Your task to perform on an android device: Search for the best rated Bluetooth earbuds on Ali express Image 0: 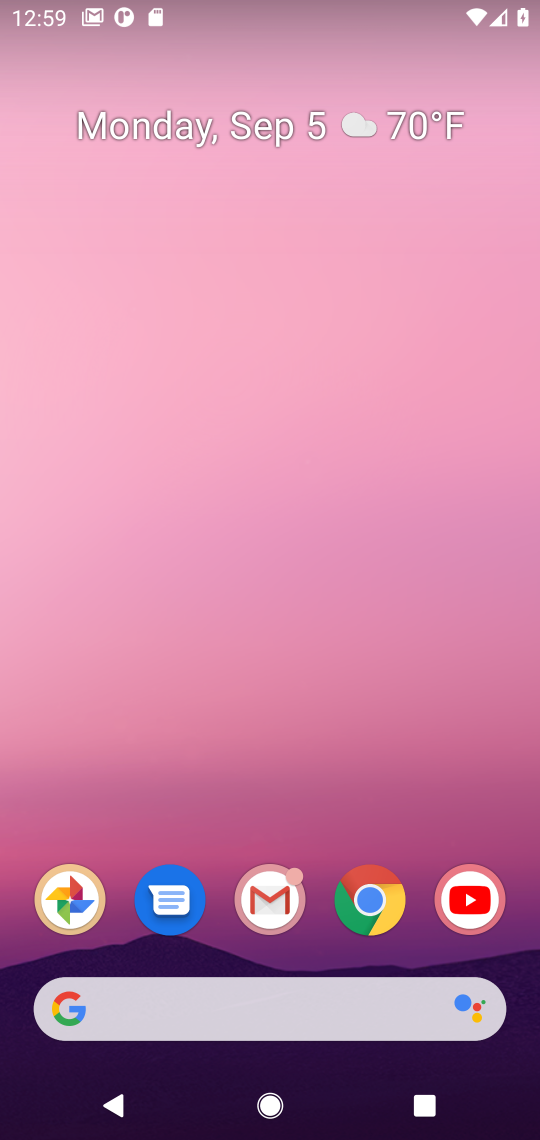
Step 0: drag from (330, 846) to (309, 87)
Your task to perform on an android device: Search for the best rated Bluetooth earbuds on Ali express Image 1: 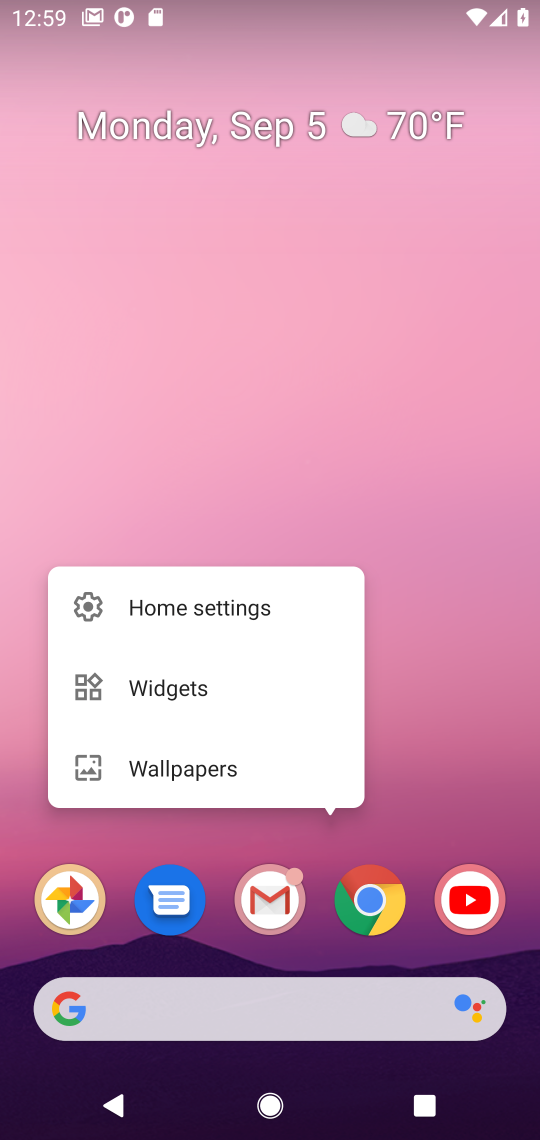
Step 1: drag from (340, 835) to (284, 157)
Your task to perform on an android device: Search for the best rated Bluetooth earbuds on Ali express Image 2: 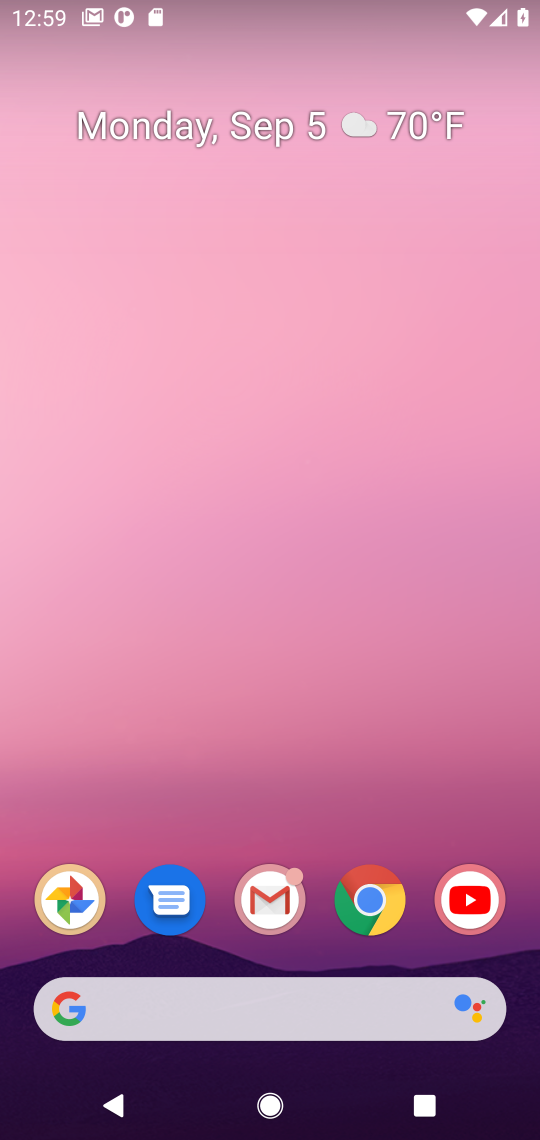
Step 2: drag from (303, 892) to (282, 339)
Your task to perform on an android device: Search for the best rated Bluetooth earbuds on Ali express Image 3: 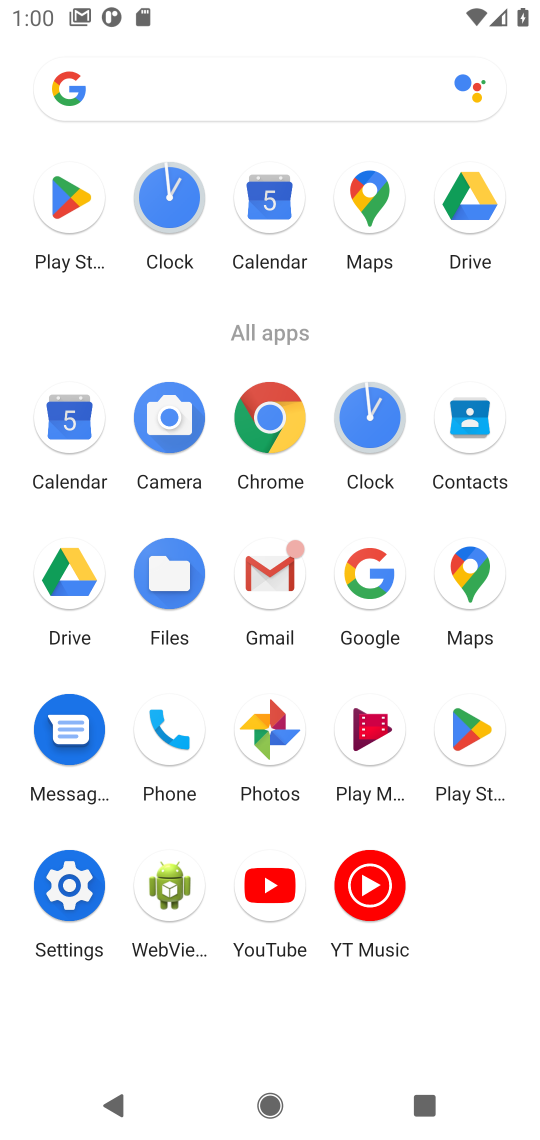
Step 3: click (367, 567)
Your task to perform on an android device: Search for the best rated Bluetooth earbuds on Ali express Image 4: 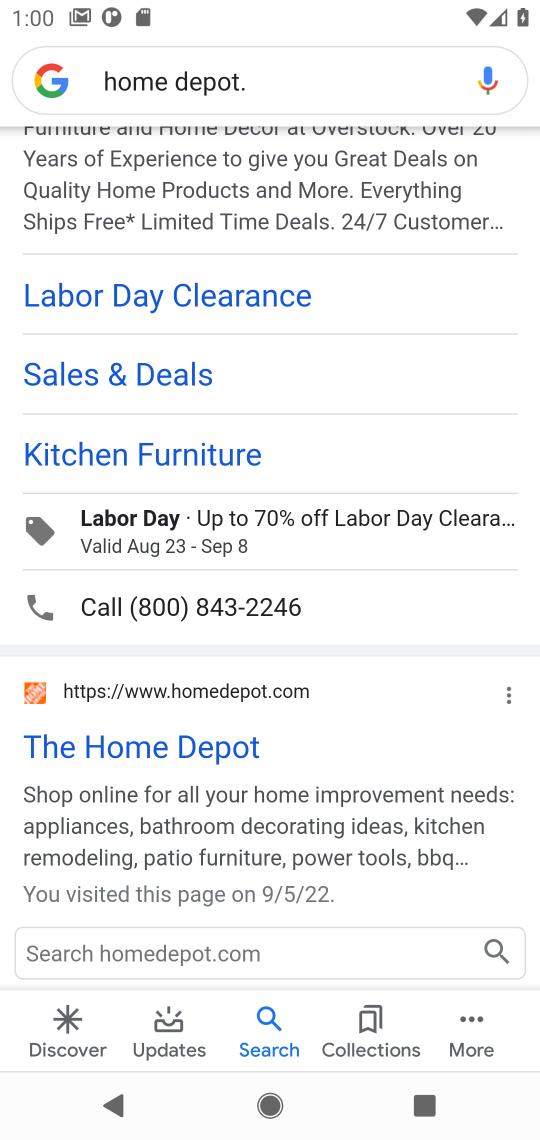
Step 4: click (313, 77)
Your task to perform on an android device: Search for the best rated Bluetooth earbuds on Ali express Image 5: 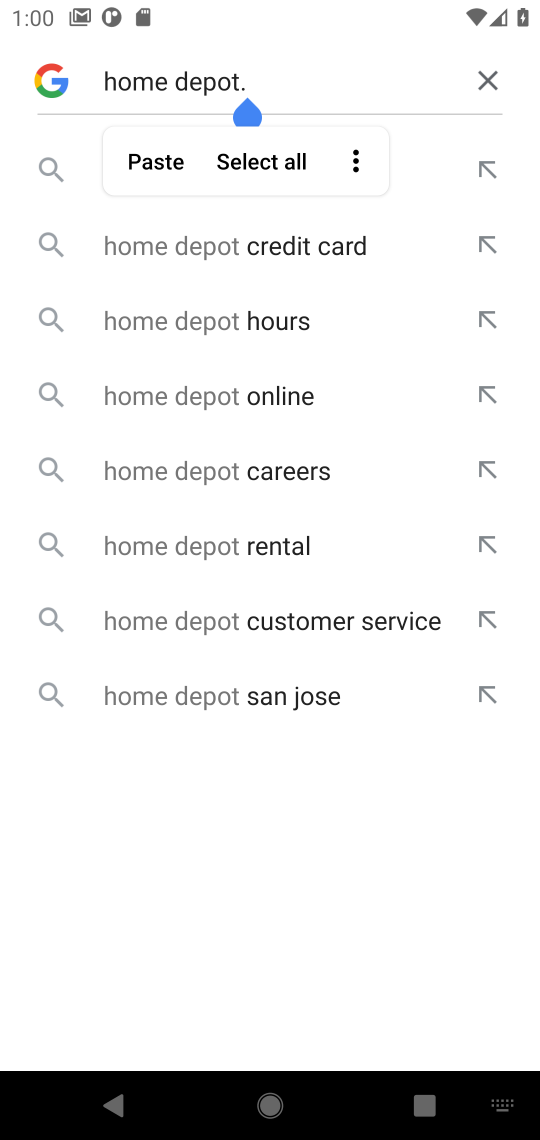
Step 5: click (490, 72)
Your task to perform on an android device: Search for the best rated Bluetooth earbuds on Ali express Image 6: 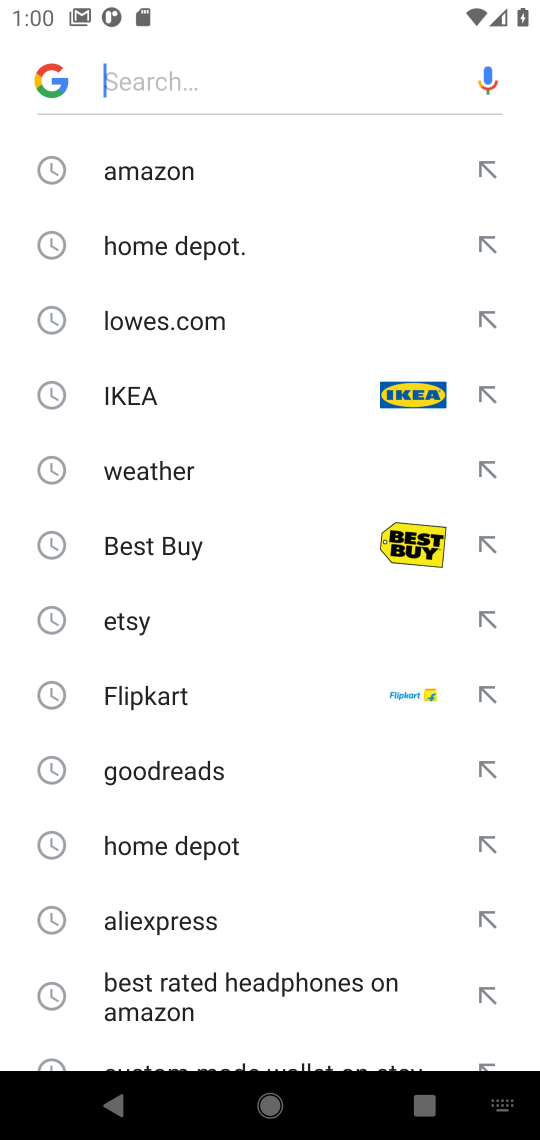
Step 6: type "Ali express"
Your task to perform on an android device: Search for the best rated Bluetooth earbuds on Ali express Image 7: 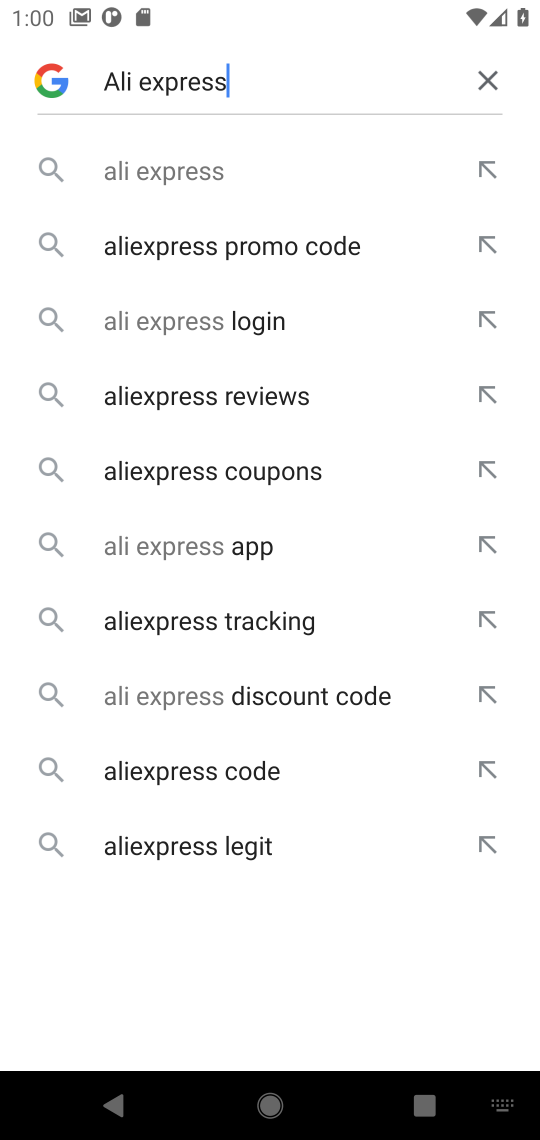
Step 7: click (190, 171)
Your task to perform on an android device: Search for the best rated Bluetooth earbuds on Ali express Image 8: 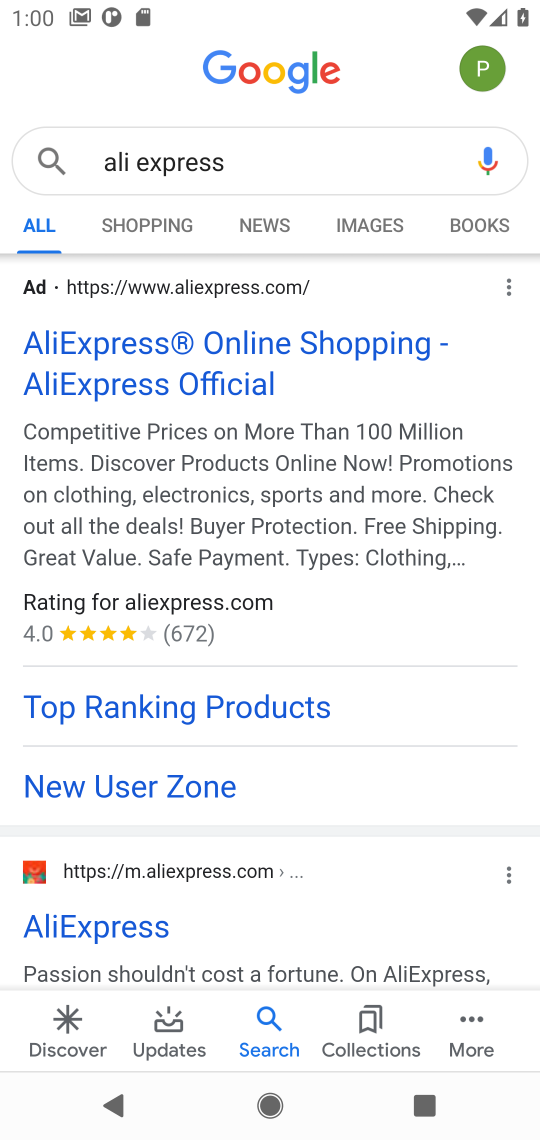
Step 8: click (105, 927)
Your task to perform on an android device: Search for the best rated Bluetooth earbuds on Ali express Image 9: 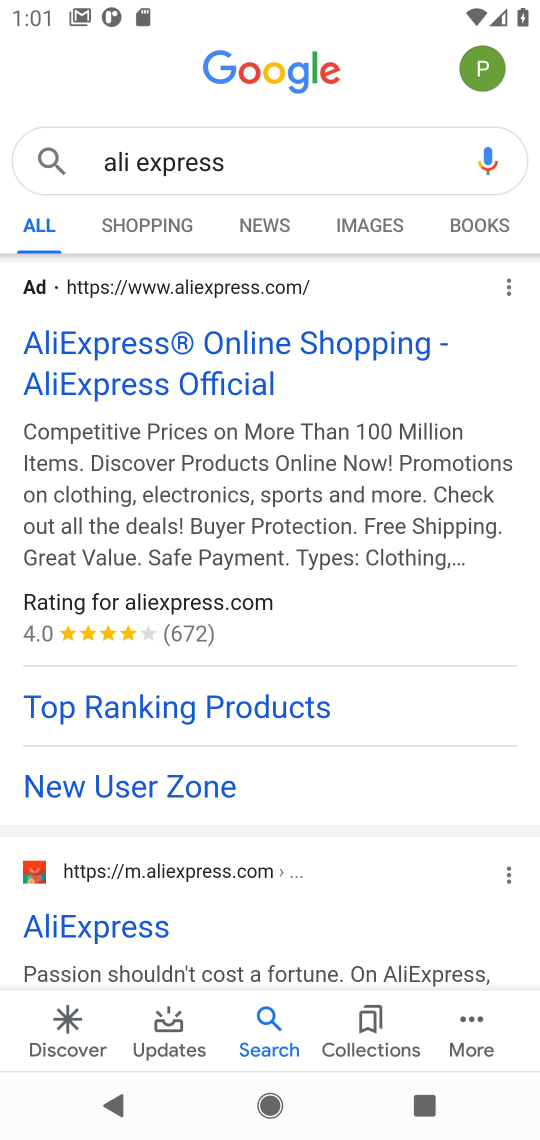
Step 9: click (105, 927)
Your task to perform on an android device: Search for the best rated Bluetooth earbuds on Ali express Image 10: 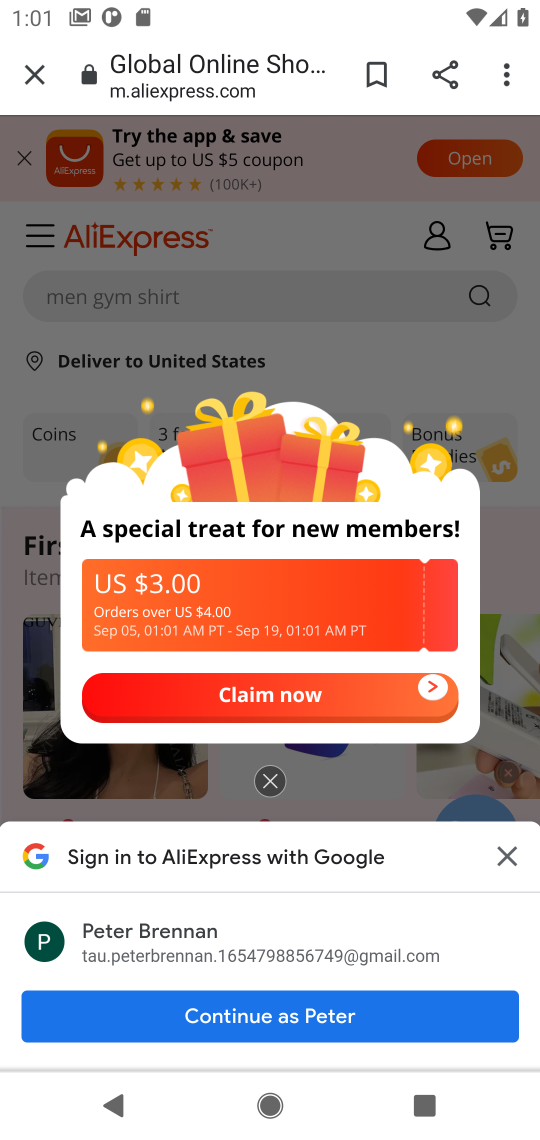
Step 10: click (507, 852)
Your task to perform on an android device: Search for the best rated Bluetooth earbuds on Ali express Image 11: 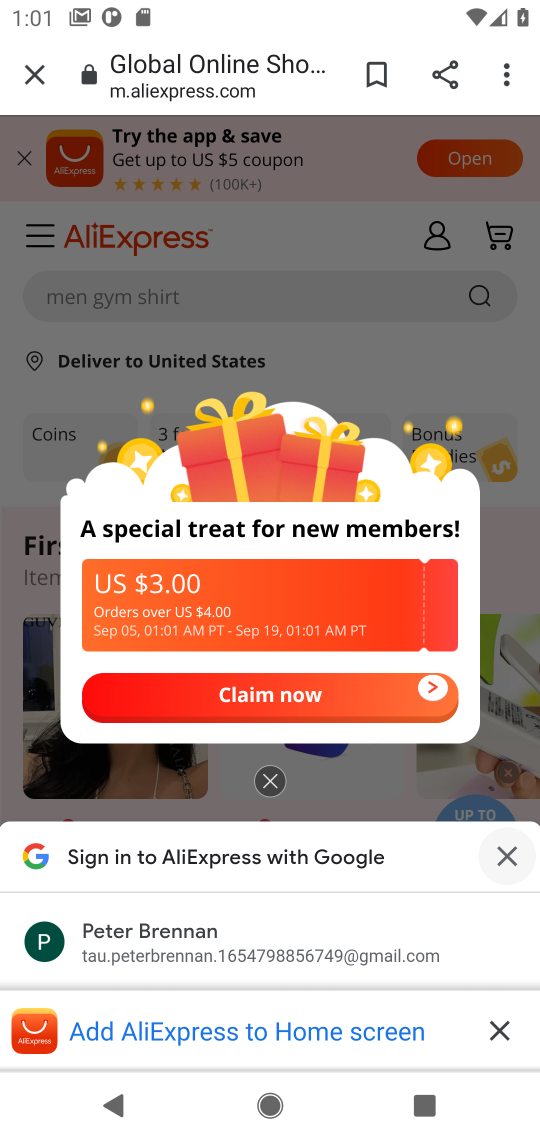
Step 11: click (272, 779)
Your task to perform on an android device: Search for the best rated Bluetooth earbuds on Ali express Image 12: 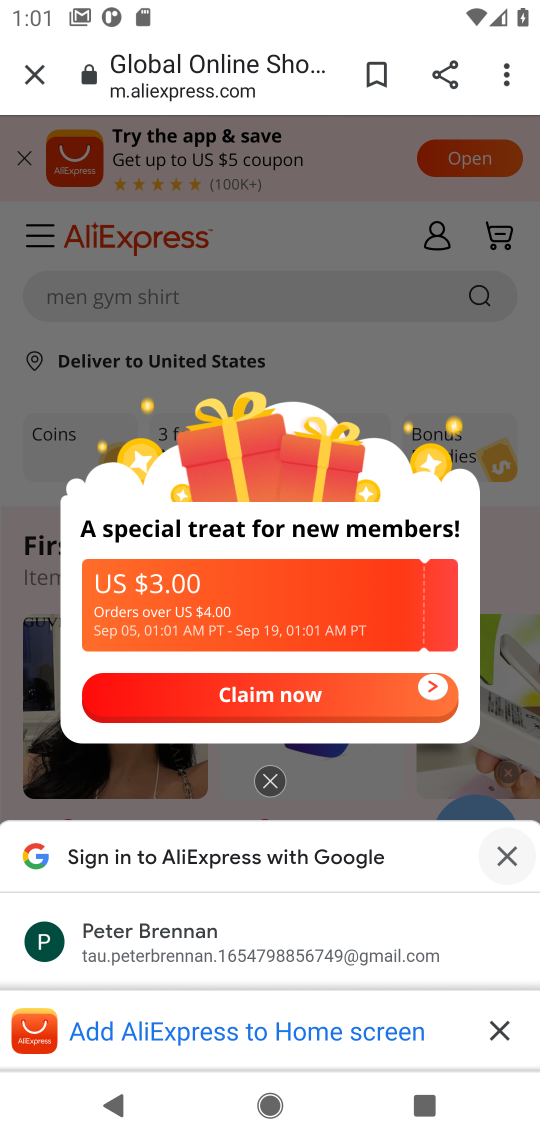
Step 12: click (272, 779)
Your task to perform on an android device: Search for the best rated Bluetooth earbuds on Ali express Image 13: 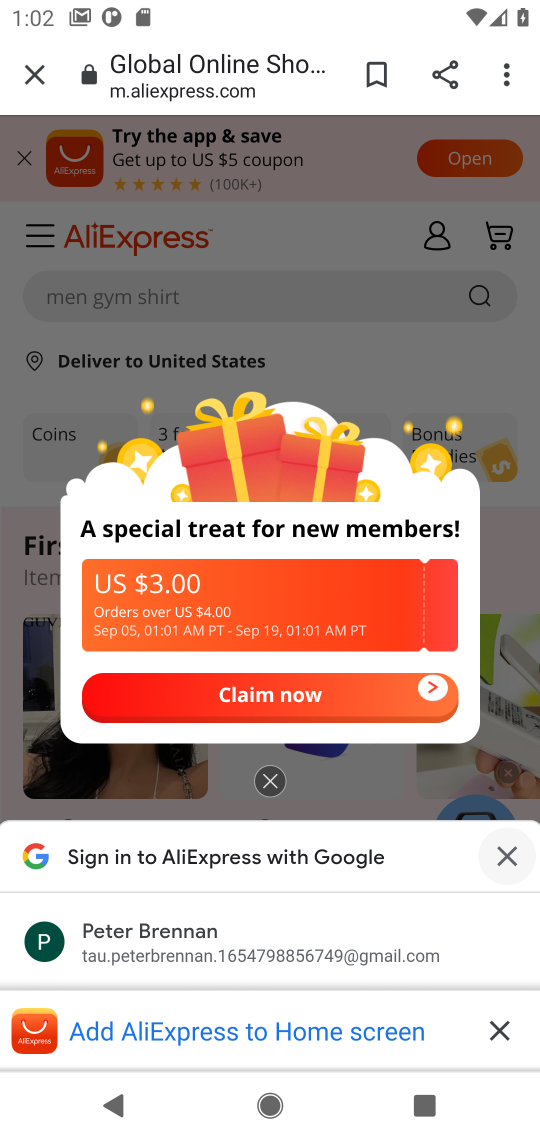
Step 13: click (501, 852)
Your task to perform on an android device: Search for the best rated Bluetooth earbuds on Ali express Image 14: 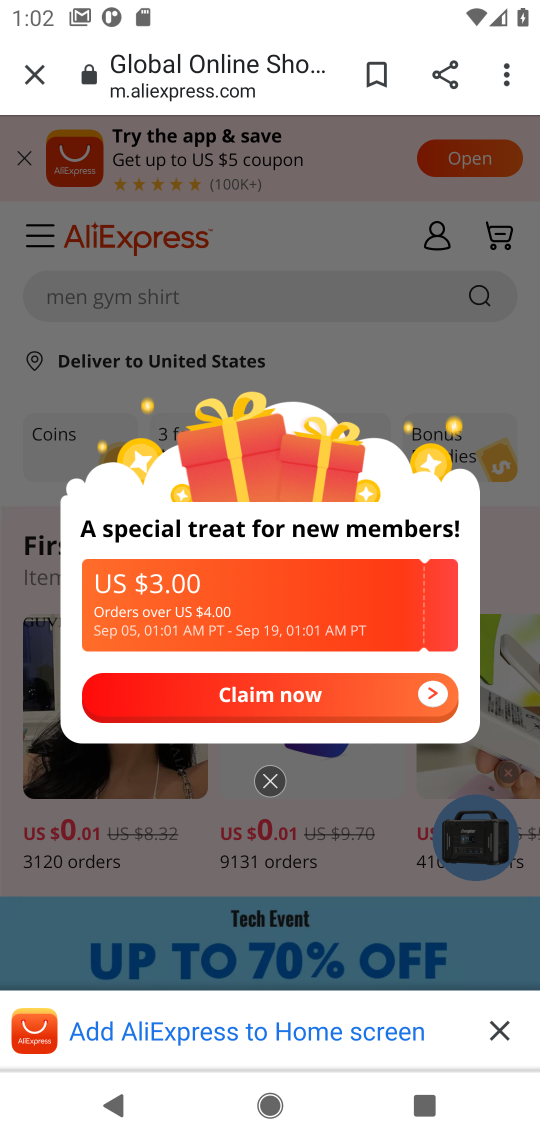
Step 14: click (269, 783)
Your task to perform on an android device: Search for the best rated Bluetooth earbuds on Ali express Image 15: 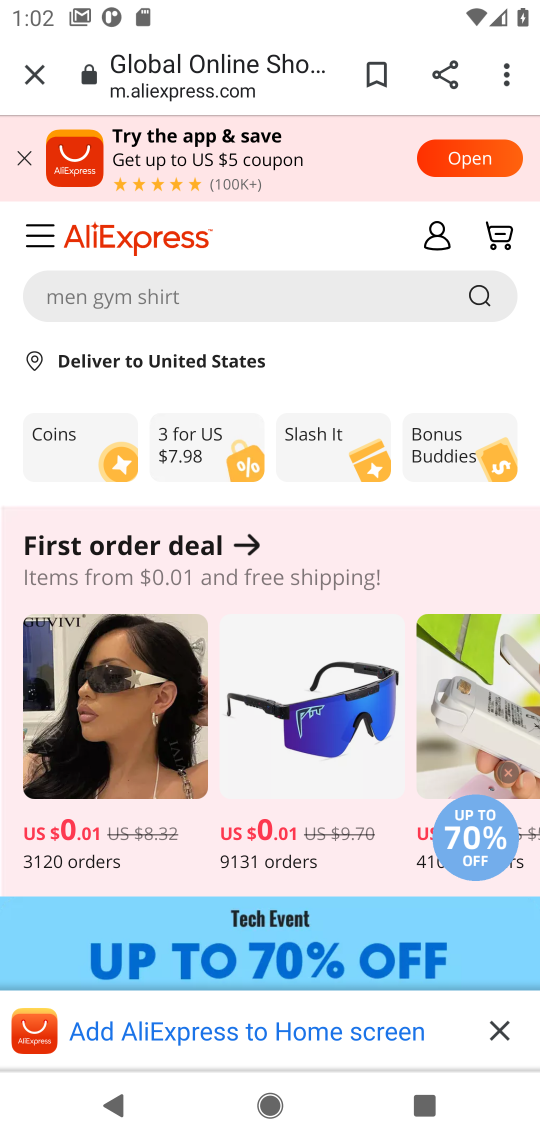
Step 15: click (266, 307)
Your task to perform on an android device: Search for the best rated Bluetooth earbuds on Ali express Image 16: 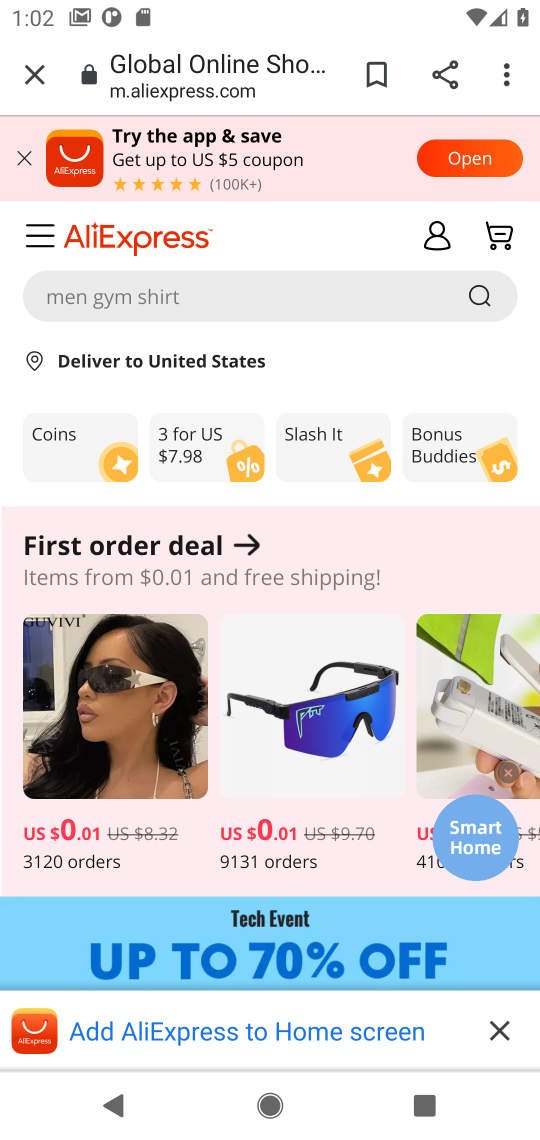
Step 16: click (184, 297)
Your task to perform on an android device: Search for the best rated Bluetooth earbuds on Ali express Image 17: 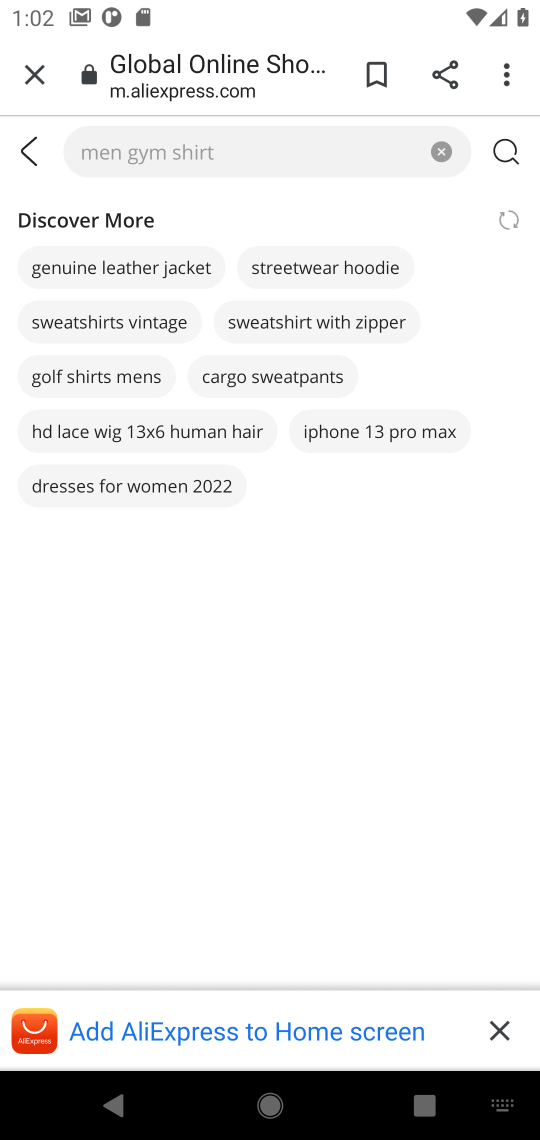
Step 17: click (313, 155)
Your task to perform on an android device: Search for the best rated Bluetooth earbuds on Ali express Image 18: 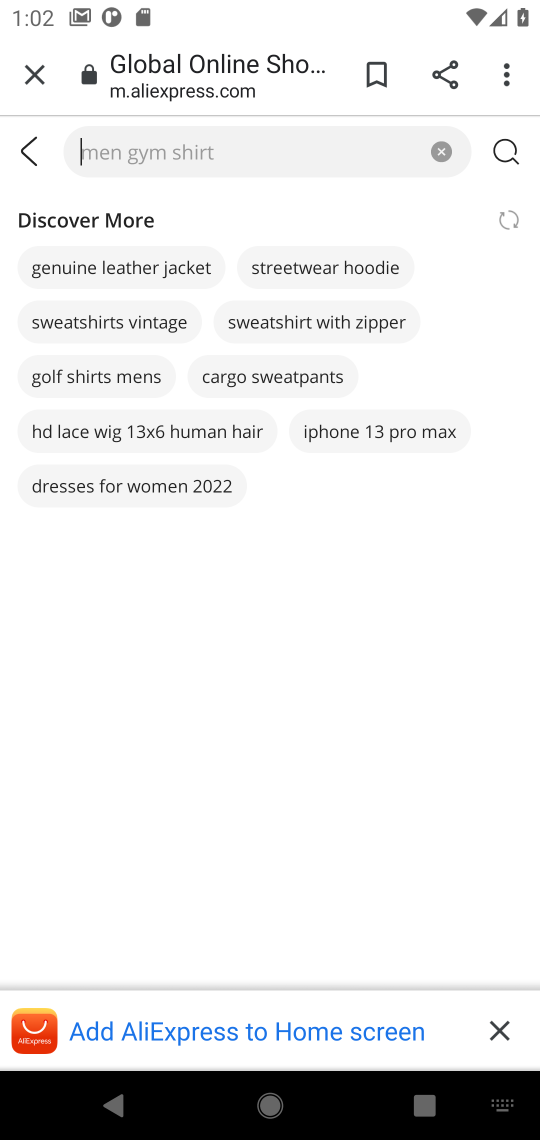
Step 18: type "Bluetooth earbuds"
Your task to perform on an android device: Search for the best rated Bluetooth earbuds on Ali express Image 19: 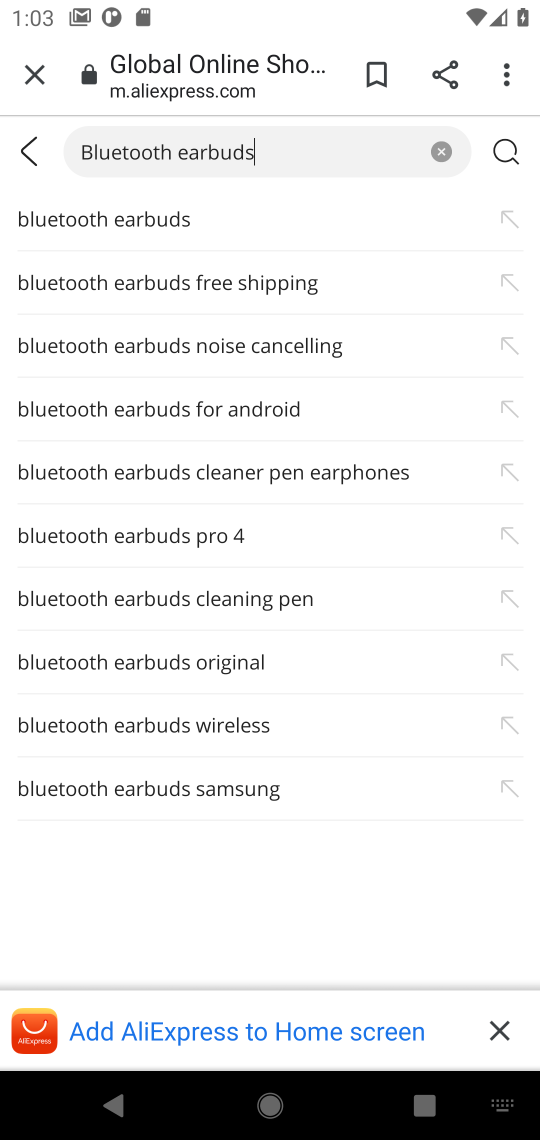
Step 19: click (118, 228)
Your task to perform on an android device: Search for the best rated Bluetooth earbuds on Ali express Image 20: 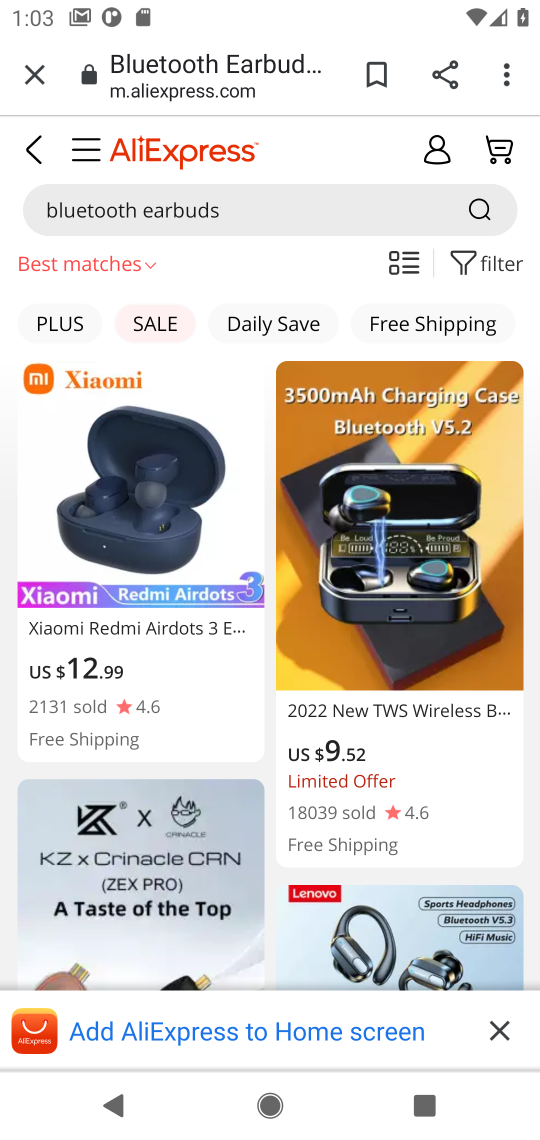
Step 20: task complete